Your task to perform on an android device: clear all cookies in the chrome app Image 0: 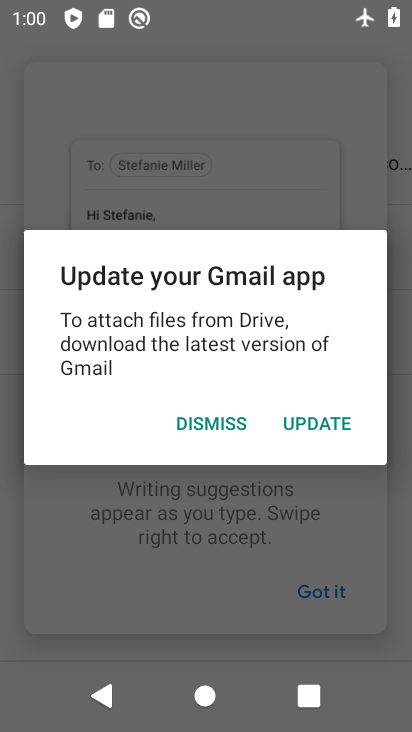
Step 0: press home button
Your task to perform on an android device: clear all cookies in the chrome app Image 1: 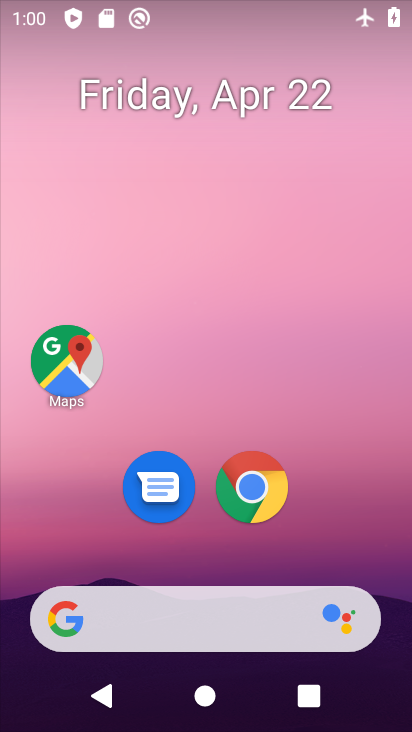
Step 1: click (239, 509)
Your task to perform on an android device: clear all cookies in the chrome app Image 2: 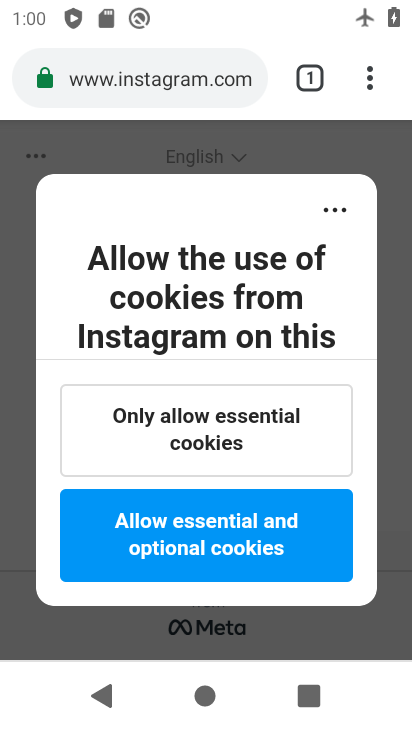
Step 2: click (367, 76)
Your task to perform on an android device: clear all cookies in the chrome app Image 3: 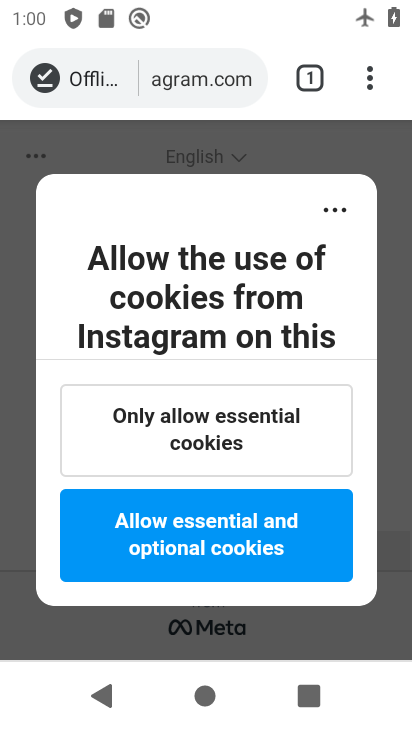
Step 3: drag from (367, 76) to (101, 516)
Your task to perform on an android device: clear all cookies in the chrome app Image 4: 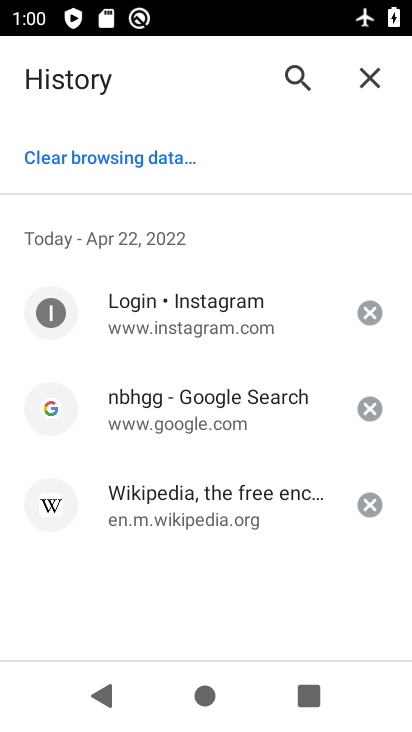
Step 4: click (96, 151)
Your task to perform on an android device: clear all cookies in the chrome app Image 5: 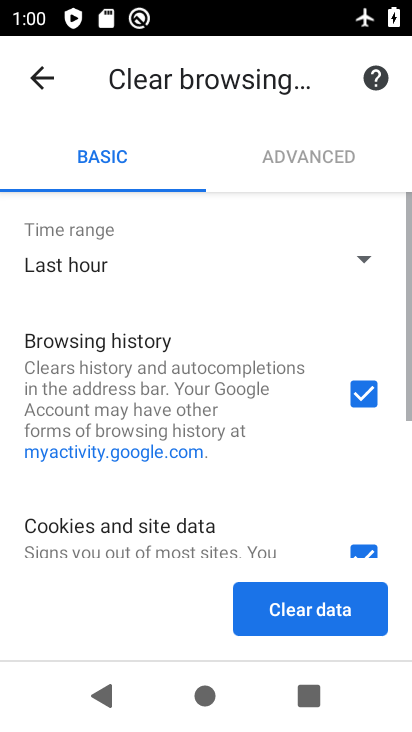
Step 5: click (331, 599)
Your task to perform on an android device: clear all cookies in the chrome app Image 6: 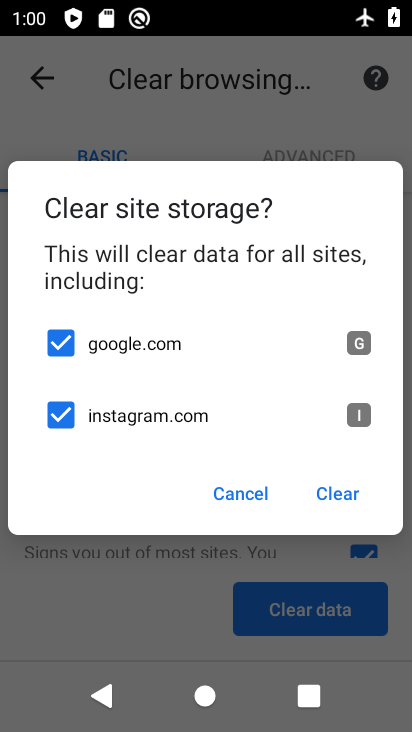
Step 6: click (339, 492)
Your task to perform on an android device: clear all cookies in the chrome app Image 7: 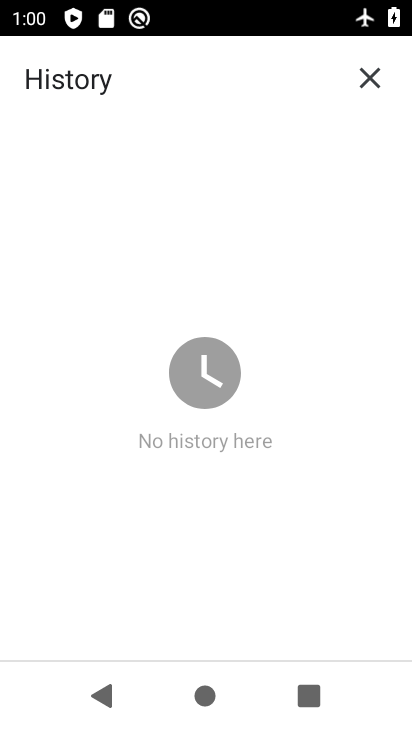
Step 7: task complete